Your task to perform on an android device: Open wifi settings Image 0: 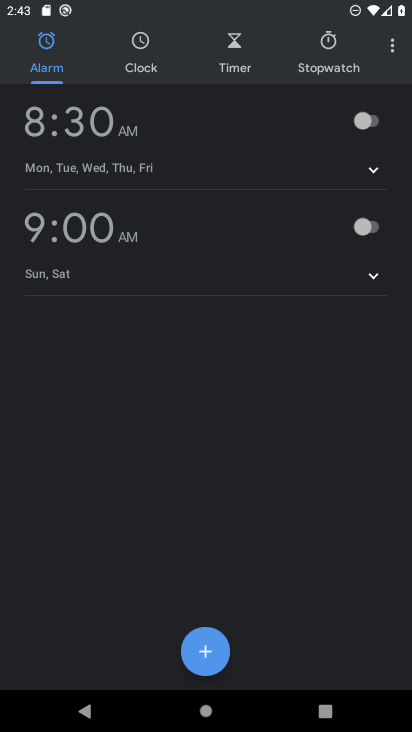
Step 0: press home button
Your task to perform on an android device: Open wifi settings Image 1: 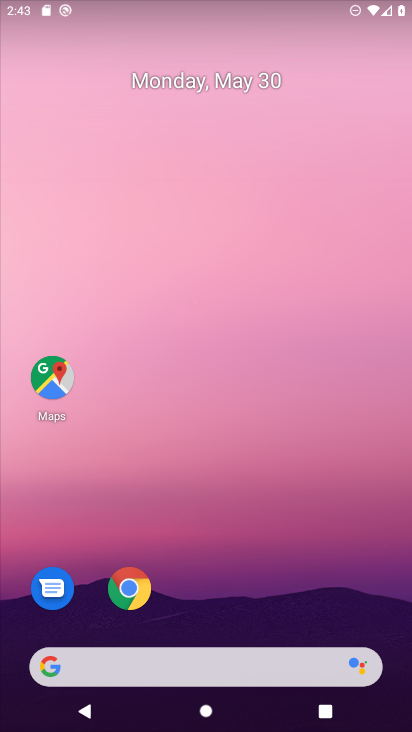
Step 1: drag from (260, 618) to (254, 273)
Your task to perform on an android device: Open wifi settings Image 2: 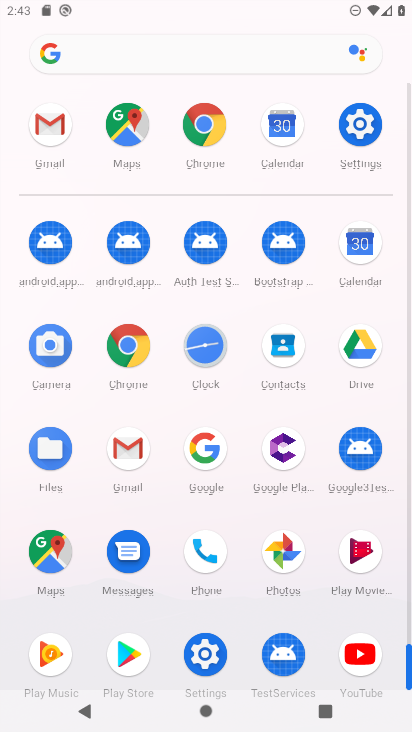
Step 2: click (361, 114)
Your task to perform on an android device: Open wifi settings Image 3: 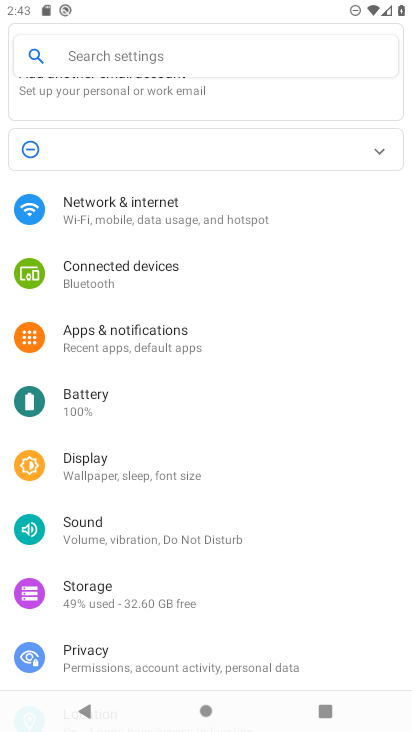
Step 3: click (142, 194)
Your task to perform on an android device: Open wifi settings Image 4: 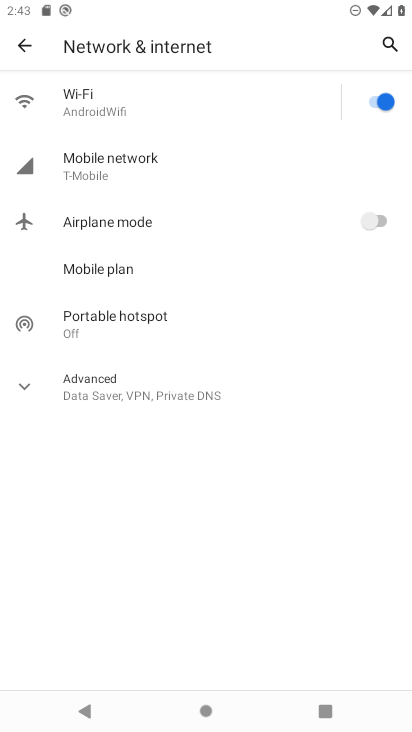
Step 4: click (229, 87)
Your task to perform on an android device: Open wifi settings Image 5: 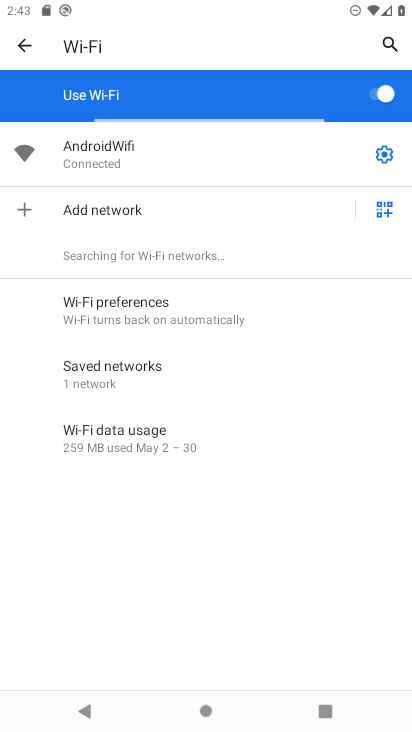
Step 5: task complete